Your task to perform on an android device: Search for sushi restaurants on Maps Image 0: 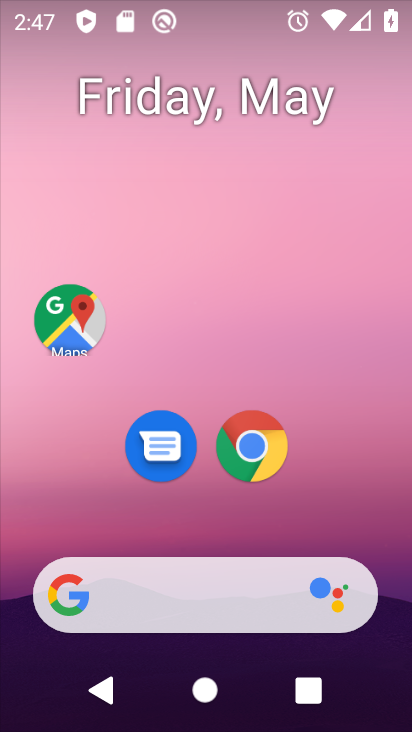
Step 0: click (73, 328)
Your task to perform on an android device: Search for sushi restaurants on Maps Image 1: 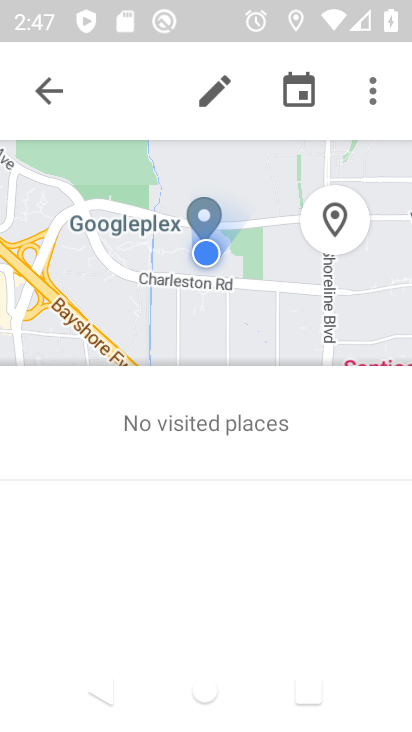
Step 1: click (49, 96)
Your task to perform on an android device: Search for sushi restaurants on Maps Image 2: 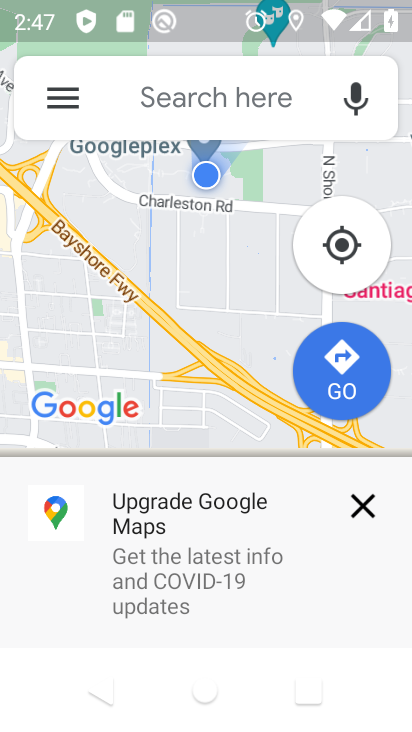
Step 2: click (366, 497)
Your task to perform on an android device: Search for sushi restaurants on Maps Image 3: 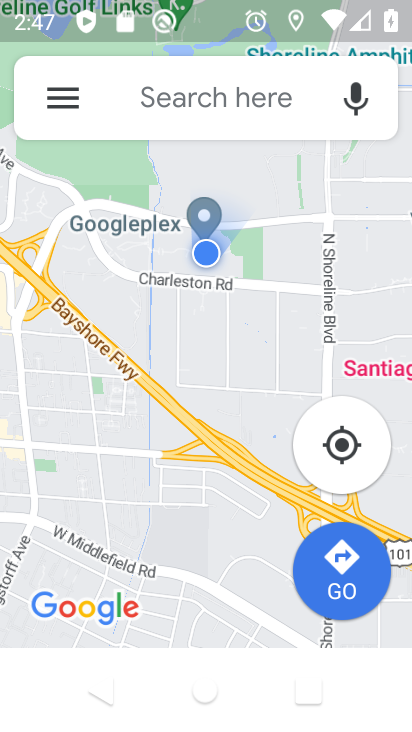
Step 3: click (214, 105)
Your task to perform on an android device: Search for sushi restaurants on Maps Image 4: 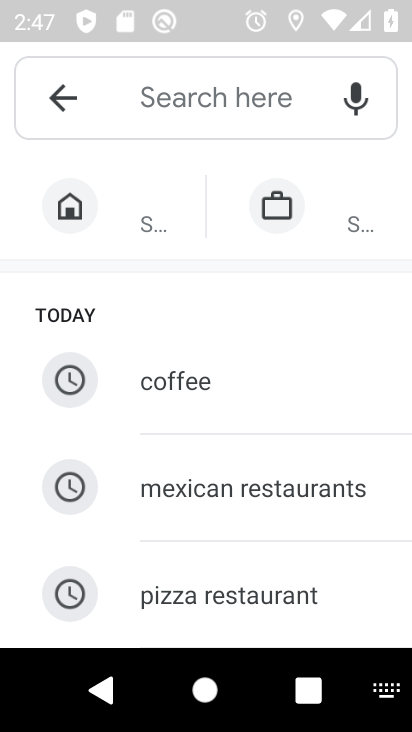
Step 4: type "sushi restaurants"
Your task to perform on an android device: Search for sushi restaurants on Maps Image 5: 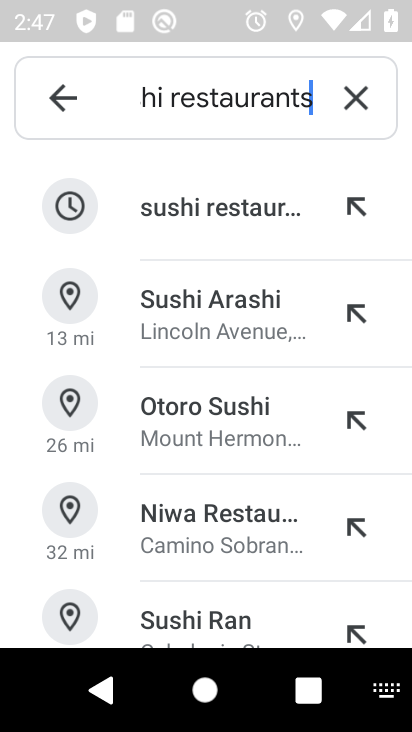
Step 5: click (265, 202)
Your task to perform on an android device: Search for sushi restaurants on Maps Image 6: 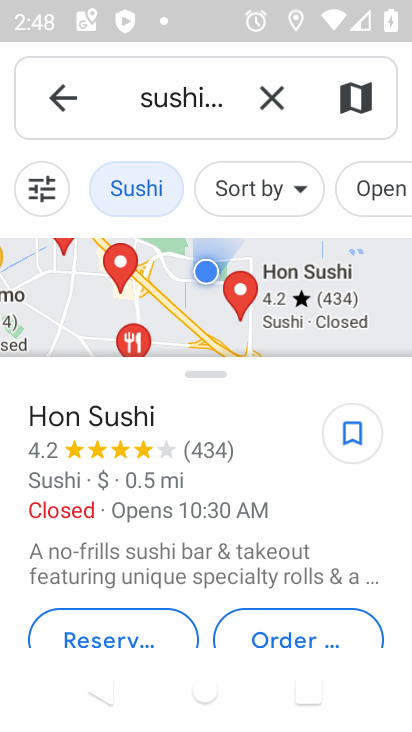
Step 6: task complete